Your task to perform on an android device: Open eBay Image 0: 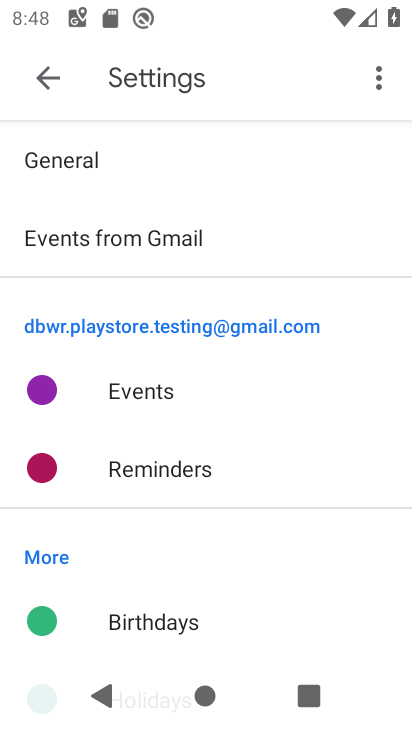
Step 0: press home button
Your task to perform on an android device: Open eBay Image 1: 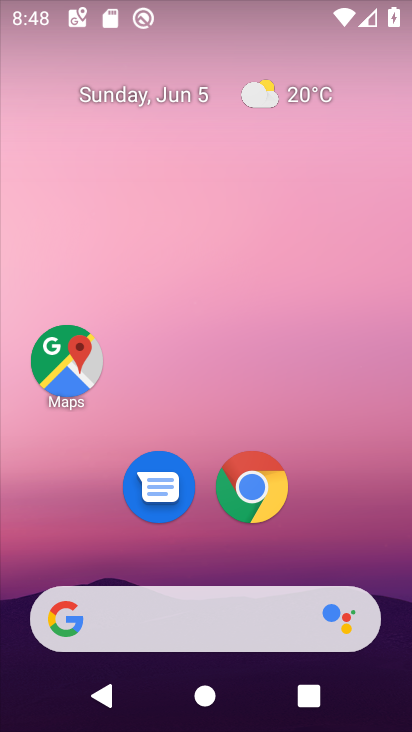
Step 1: click (272, 493)
Your task to perform on an android device: Open eBay Image 2: 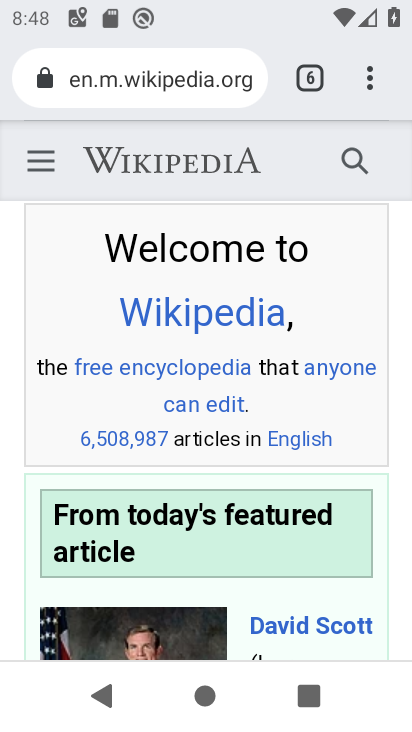
Step 2: click (363, 77)
Your task to perform on an android device: Open eBay Image 3: 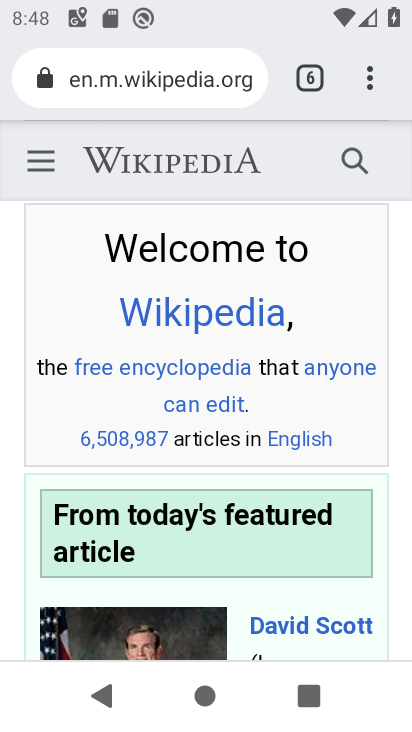
Step 3: click (378, 84)
Your task to perform on an android device: Open eBay Image 4: 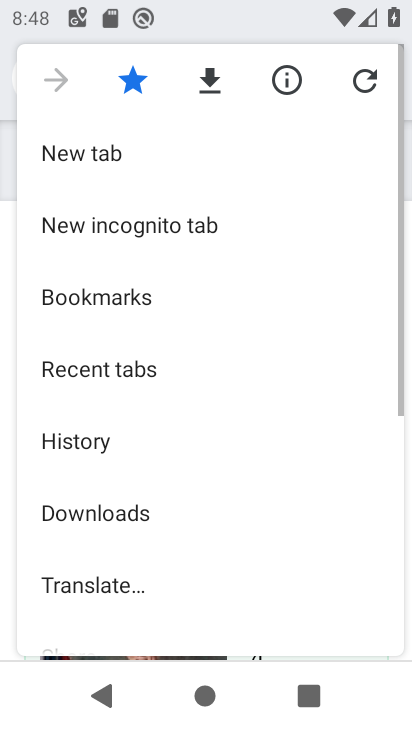
Step 4: click (102, 165)
Your task to perform on an android device: Open eBay Image 5: 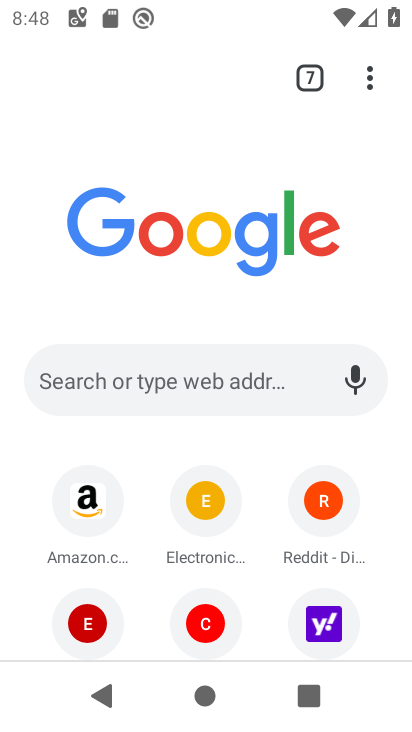
Step 5: drag from (251, 557) to (250, 362)
Your task to perform on an android device: Open eBay Image 6: 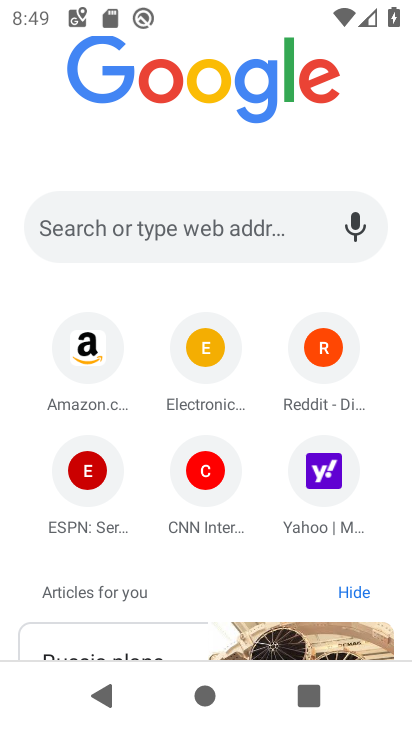
Step 6: click (205, 224)
Your task to perform on an android device: Open eBay Image 7: 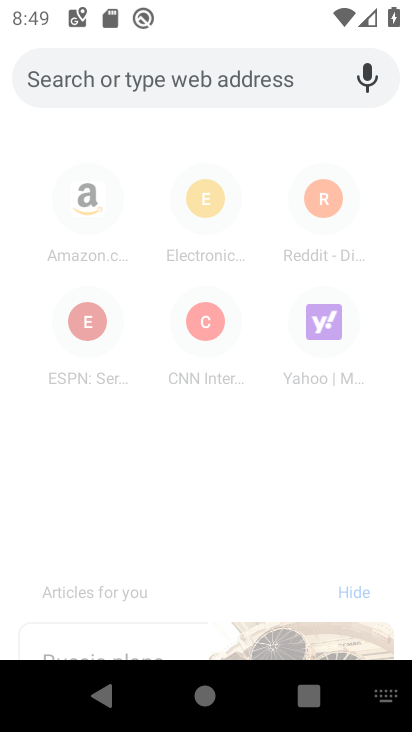
Step 7: type "eBay"
Your task to perform on an android device: Open eBay Image 8: 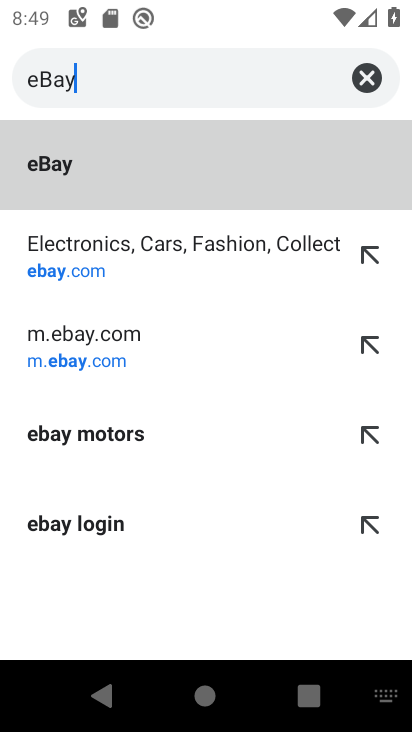
Step 8: click (122, 175)
Your task to perform on an android device: Open eBay Image 9: 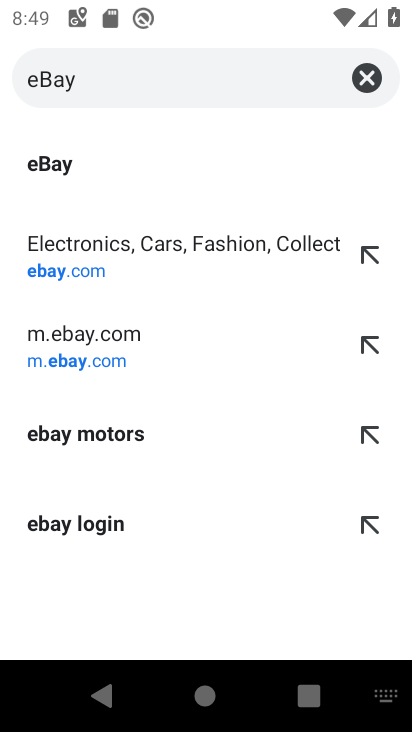
Step 9: click (113, 157)
Your task to perform on an android device: Open eBay Image 10: 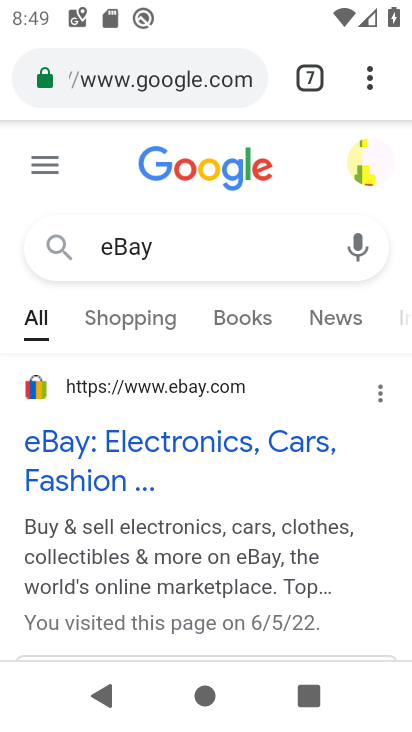
Step 10: task complete